Your task to perform on an android device: turn off notifications settings in the gmail app Image 0: 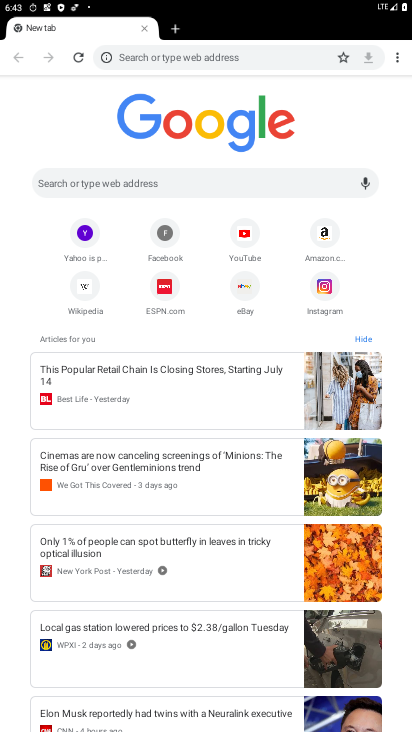
Step 0: drag from (370, 670) to (329, 366)
Your task to perform on an android device: turn off notifications settings in the gmail app Image 1: 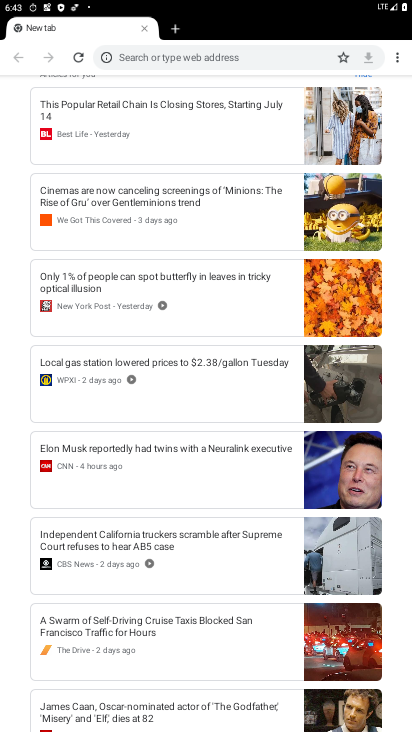
Step 1: press home button
Your task to perform on an android device: turn off notifications settings in the gmail app Image 2: 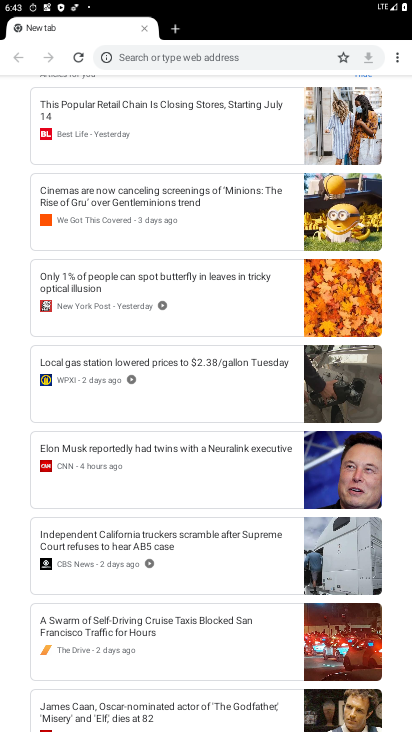
Step 2: drag from (317, 683) to (234, 66)
Your task to perform on an android device: turn off notifications settings in the gmail app Image 3: 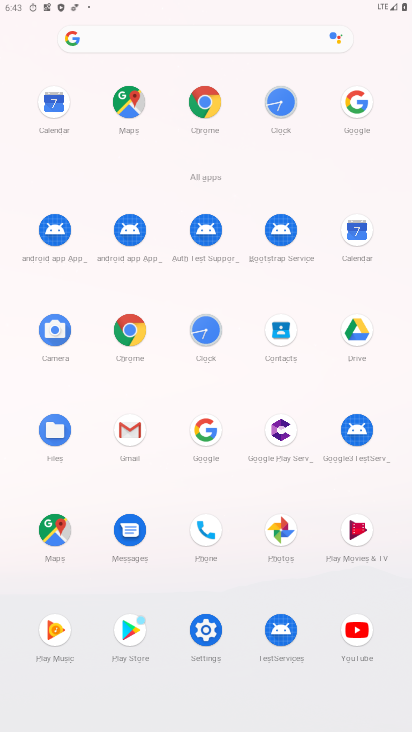
Step 3: click (134, 429)
Your task to perform on an android device: turn off notifications settings in the gmail app Image 4: 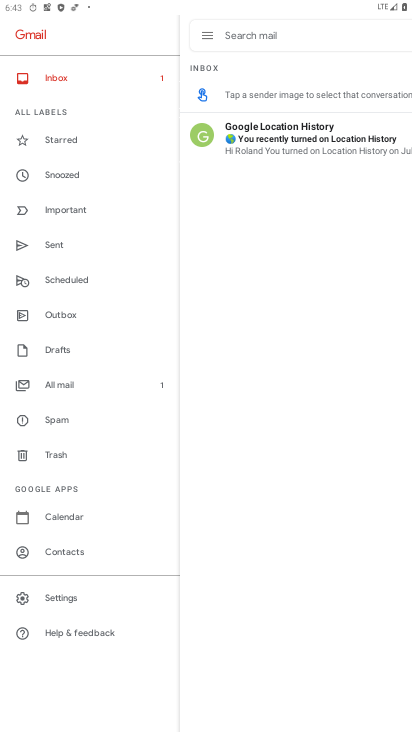
Step 4: click (41, 598)
Your task to perform on an android device: turn off notifications settings in the gmail app Image 5: 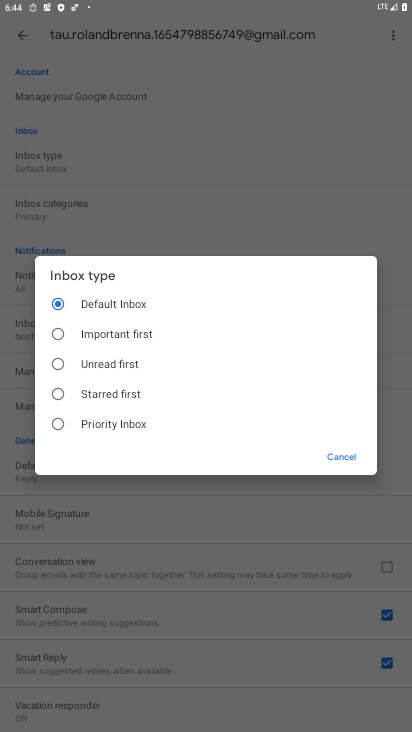
Step 5: click (362, 465)
Your task to perform on an android device: turn off notifications settings in the gmail app Image 6: 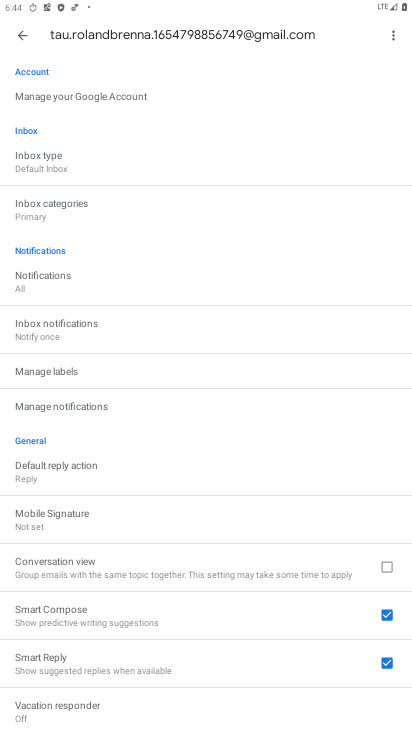
Step 6: click (11, 278)
Your task to perform on an android device: turn off notifications settings in the gmail app Image 7: 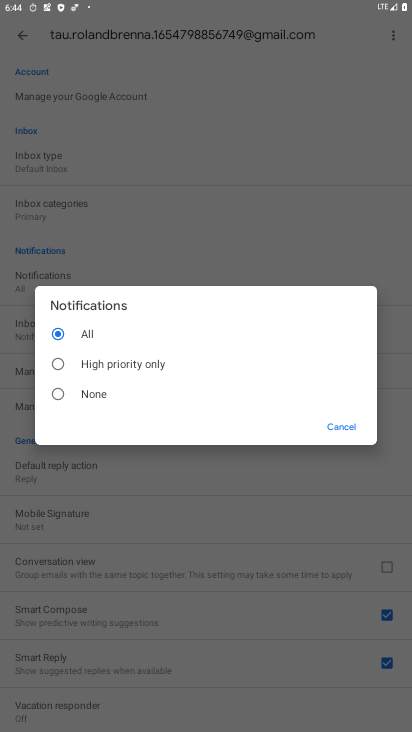
Step 7: click (59, 397)
Your task to perform on an android device: turn off notifications settings in the gmail app Image 8: 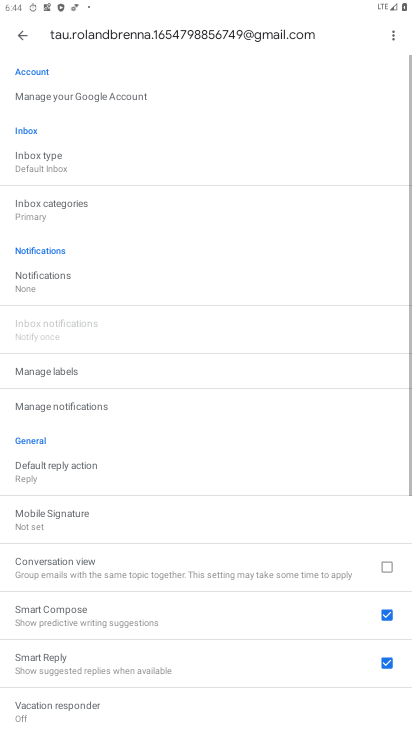
Step 8: task complete